Your task to perform on an android device: change the clock display to analog Image 0: 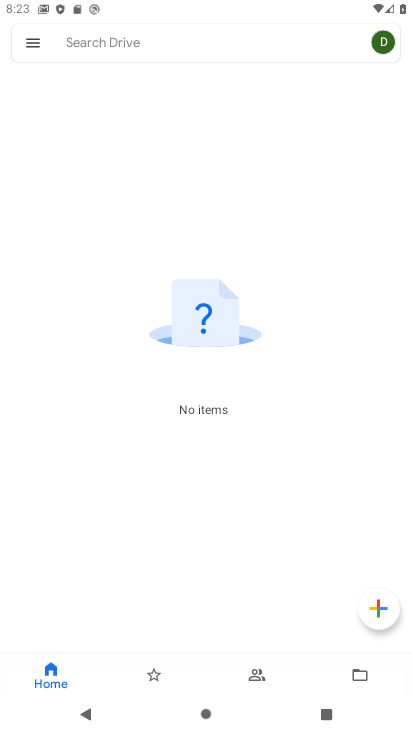
Step 0: press home button
Your task to perform on an android device: change the clock display to analog Image 1: 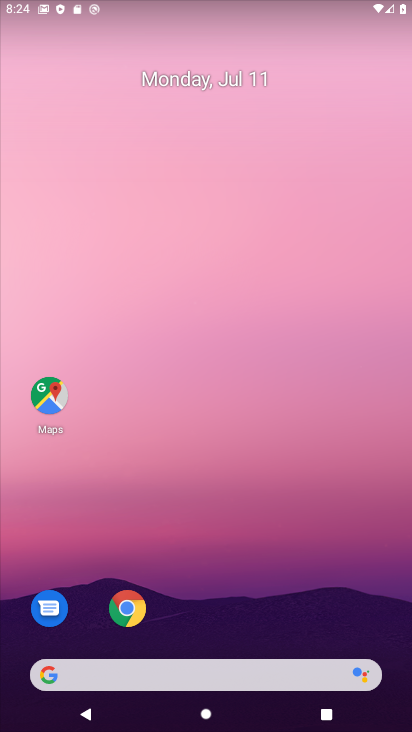
Step 1: drag from (225, 571) to (225, 87)
Your task to perform on an android device: change the clock display to analog Image 2: 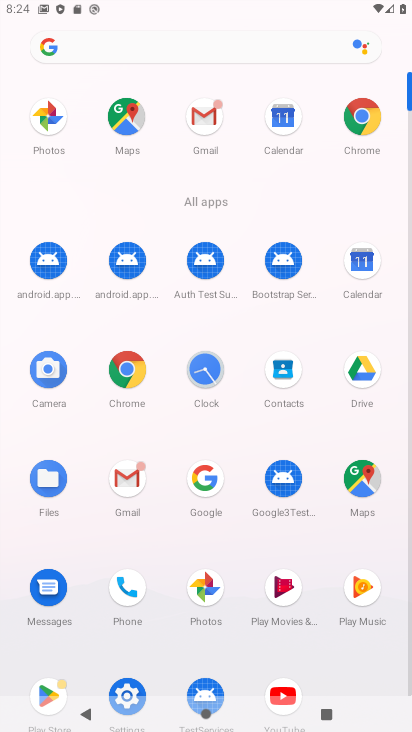
Step 2: click (211, 357)
Your task to perform on an android device: change the clock display to analog Image 3: 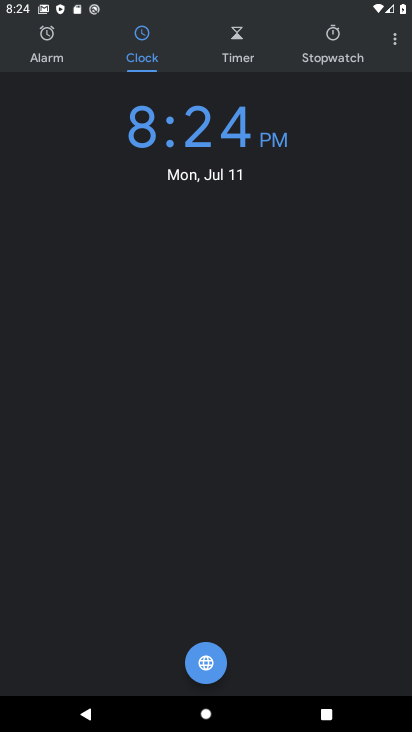
Step 3: click (397, 45)
Your task to perform on an android device: change the clock display to analog Image 4: 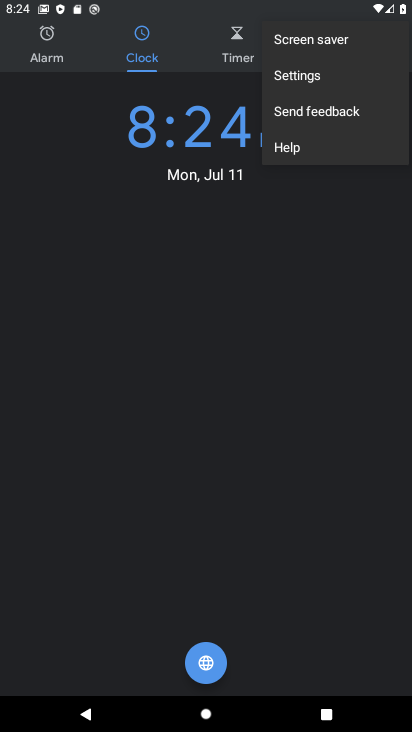
Step 4: click (319, 76)
Your task to perform on an android device: change the clock display to analog Image 5: 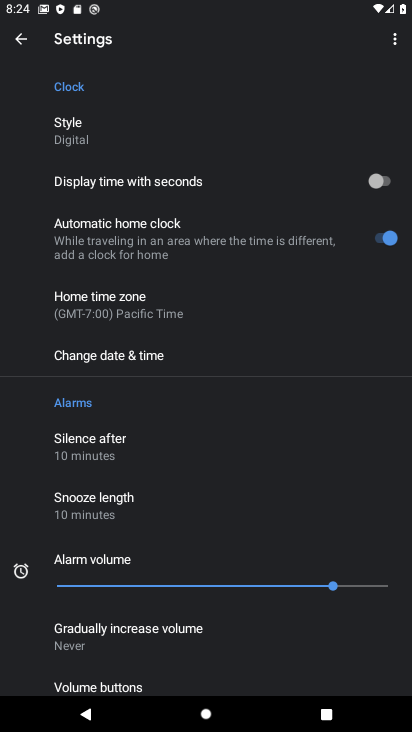
Step 5: click (189, 121)
Your task to perform on an android device: change the clock display to analog Image 6: 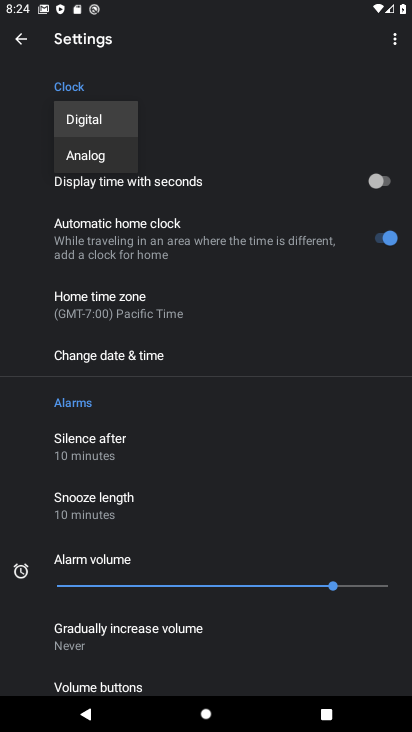
Step 6: click (99, 156)
Your task to perform on an android device: change the clock display to analog Image 7: 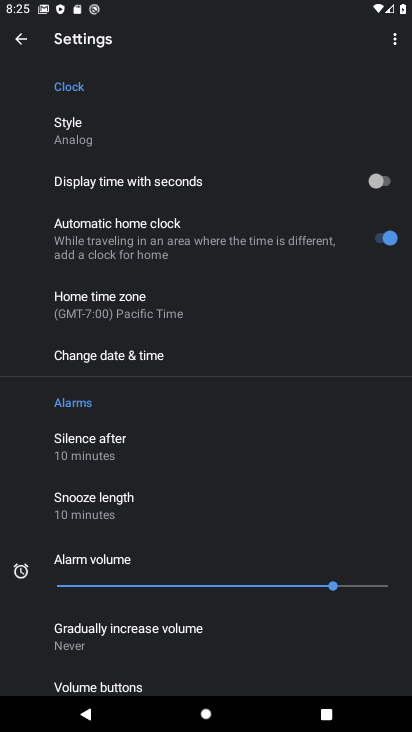
Step 7: task complete